Your task to perform on an android device: Open battery settings Image 0: 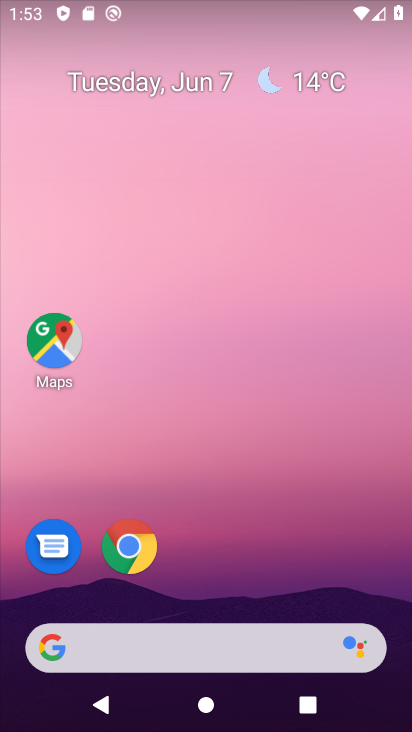
Step 0: drag from (272, 3) to (344, 503)
Your task to perform on an android device: Open battery settings Image 1: 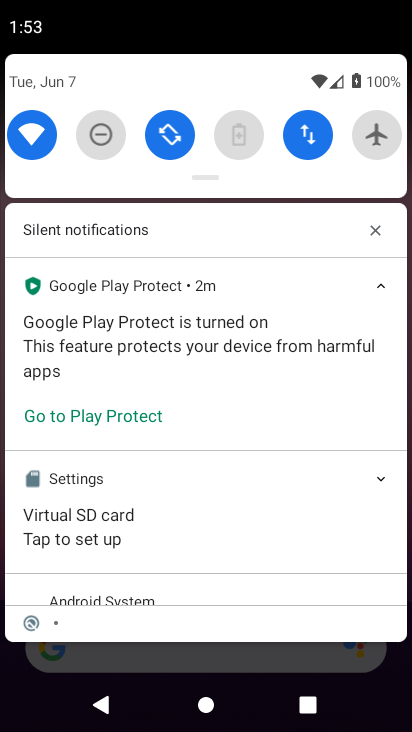
Step 1: click (254, 131)
Your task to perform on an android device: Open battery settings Image 2: 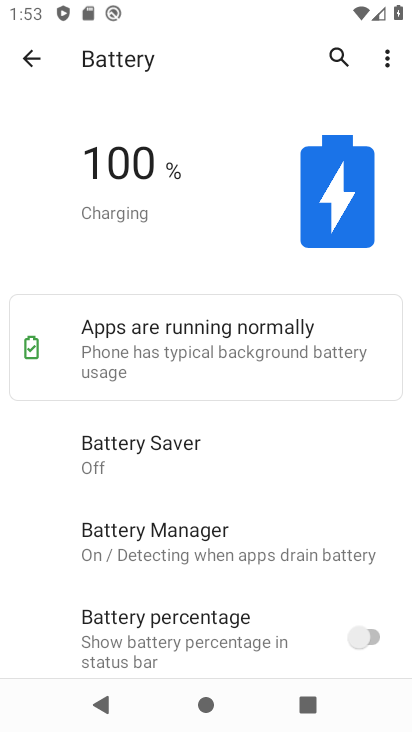
Step 2: task complete